Your task to perform on an android device: Open Chrome and go to settings Image 0: 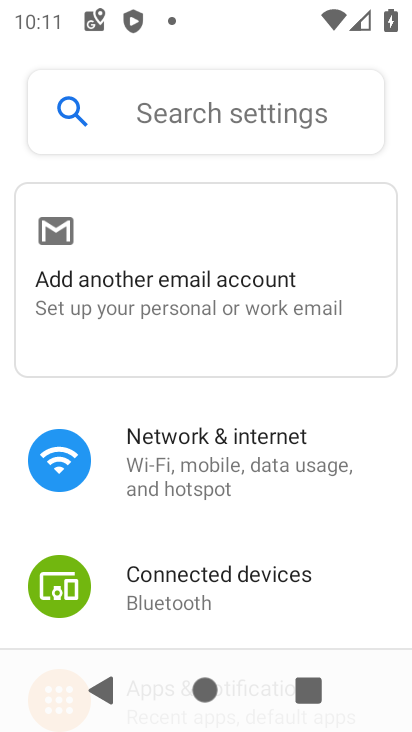
Step 0: press home button
Your task to perform on an android device: Open Chrome and go to settings Image 1: 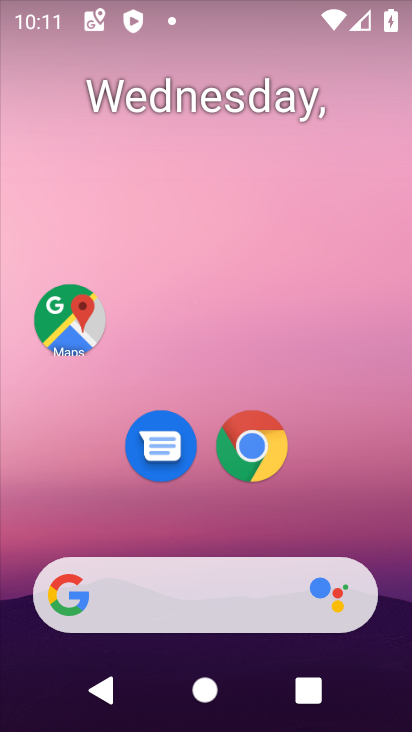
Step 1: click (249, 444)
Your task to perform on an android device: Open Chrome and go to settings Image 2: 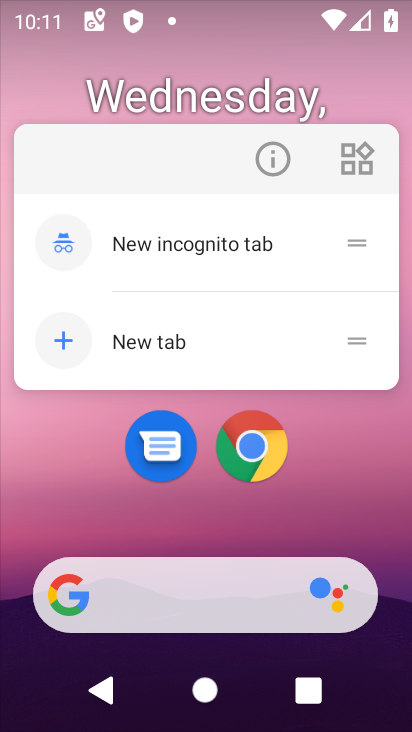
Step 2: click (252, 461)
Your task to perform on an android device: Open Chrome and go to settings Image 3: 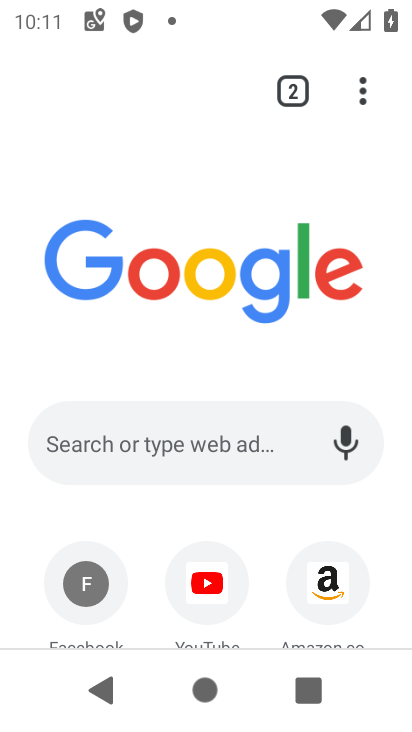
Step 3: click (365, 97)
Your task to perform on an android device: Open Chrome and go to settings Image 4: 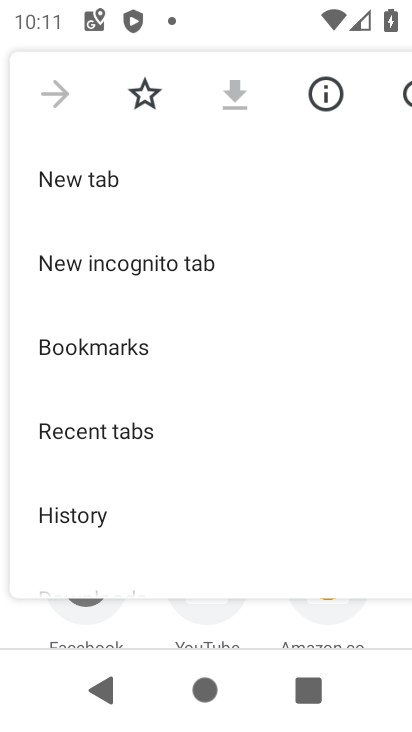
Step 4: drag from (118, 488) to (179, 114)
Your task to perform on an android device: Open Chrome and go to settings Image 5: 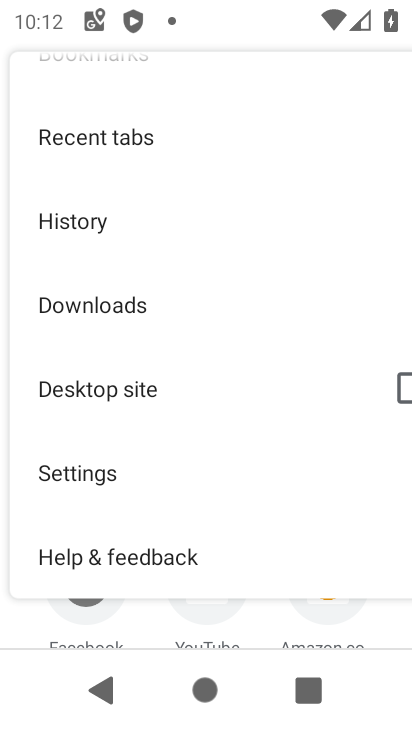
Step 5: click (169, 471)
Your task to perform on an android device: Open Chrome and go to settings Image 6: 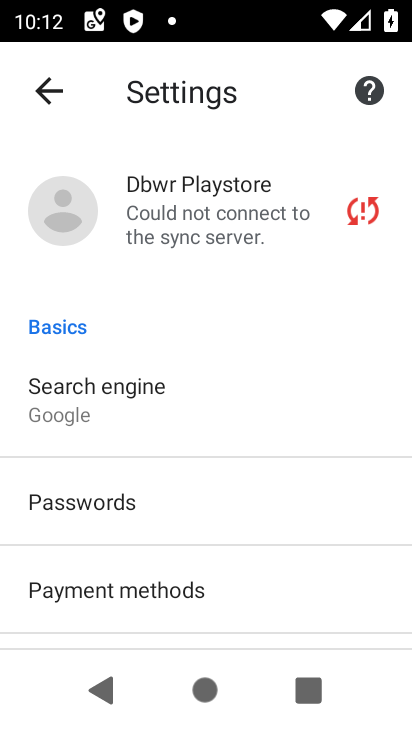
Step 6: task complete